Your task to perform on an android device: open app "DoorDash - Dasher" Image 0: 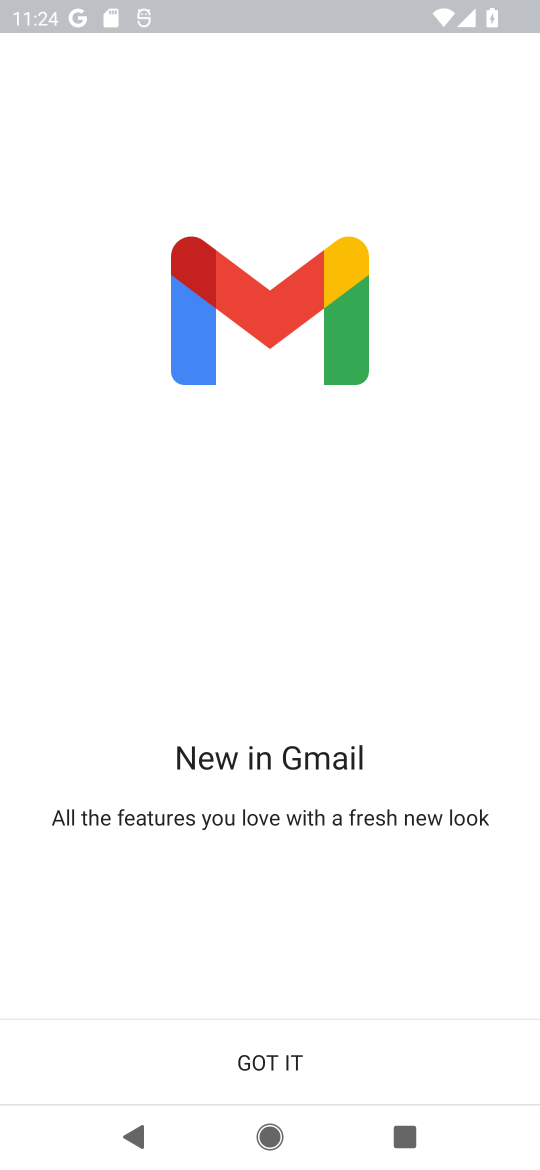
Step 0: press back button
Your task to perform on an android device: open app "DoorDash - Dasher" Image 1: 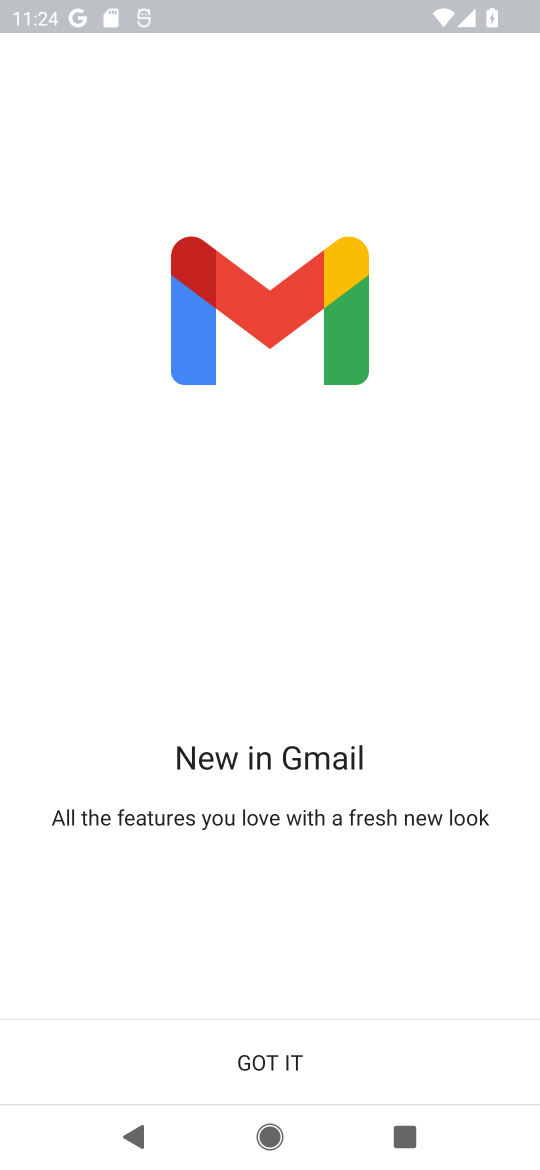
Step 1: press back button
Your task to perform on an android device: open app "DoorDash - Dasher" Image 2: 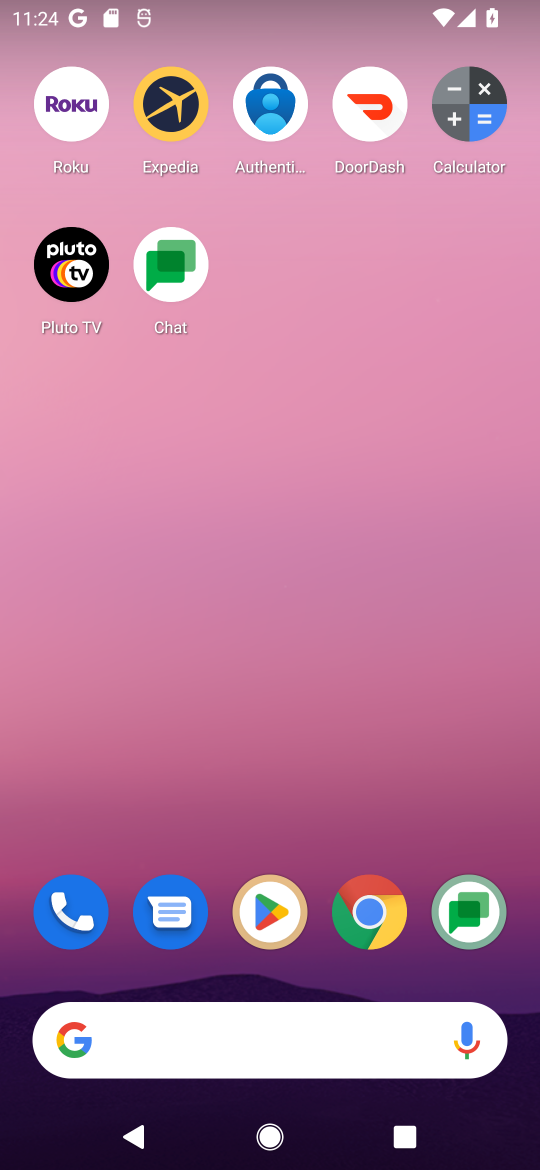
Step 2: press back button
Your task to perform on an android device: open app "DoorDash - Dasher" Image 3: 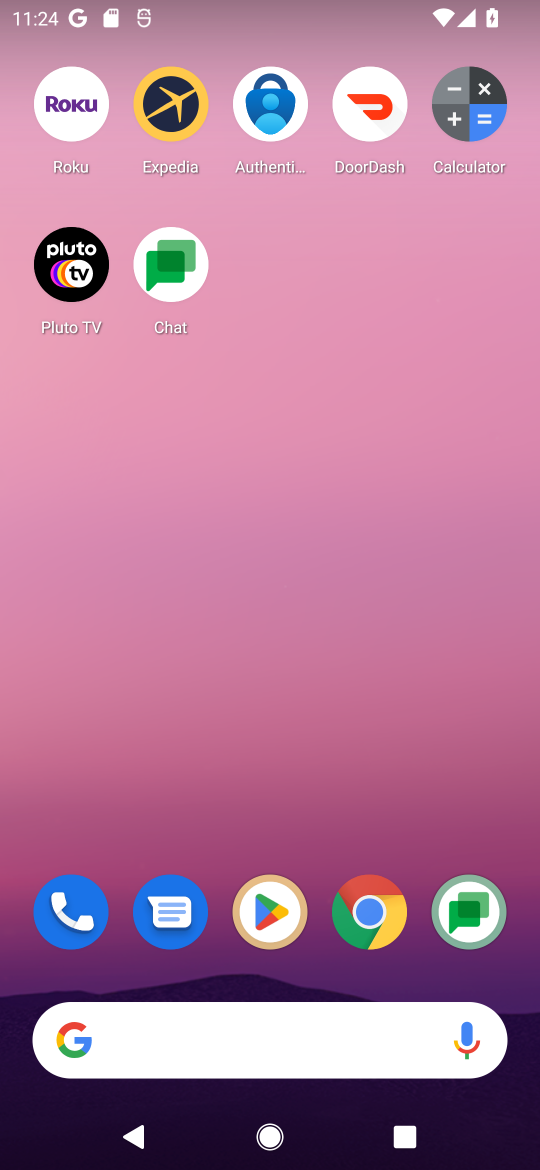
Step 3: press back button
Your task to perform on an android device: open app "DoorDash - Dasher" Image 4: 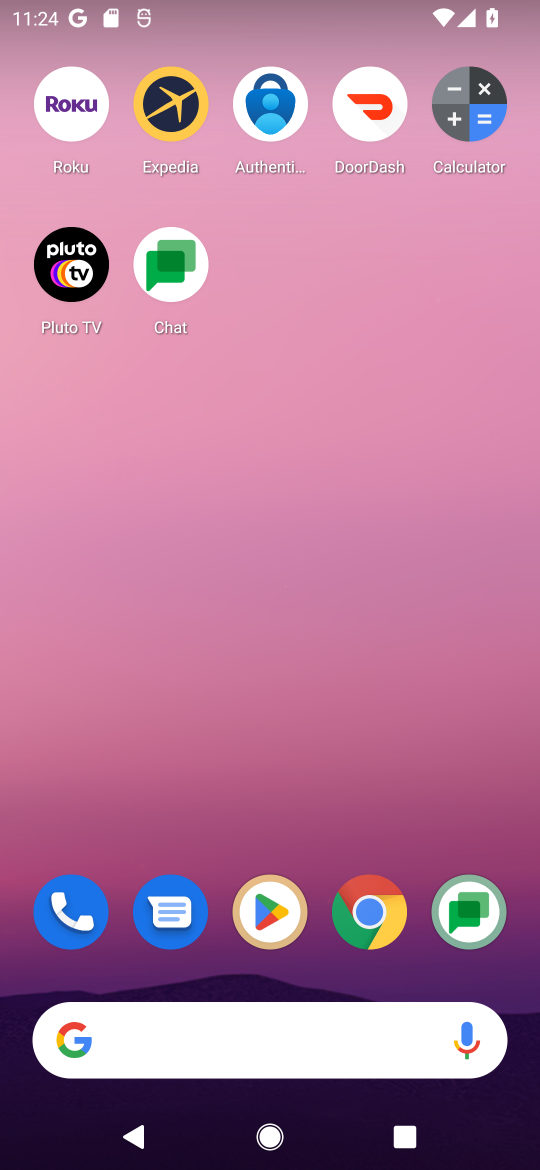
Step 4: click (284, 929)
Your task to perform on an android device: open app "DoorDash - Dasher" Image 5: 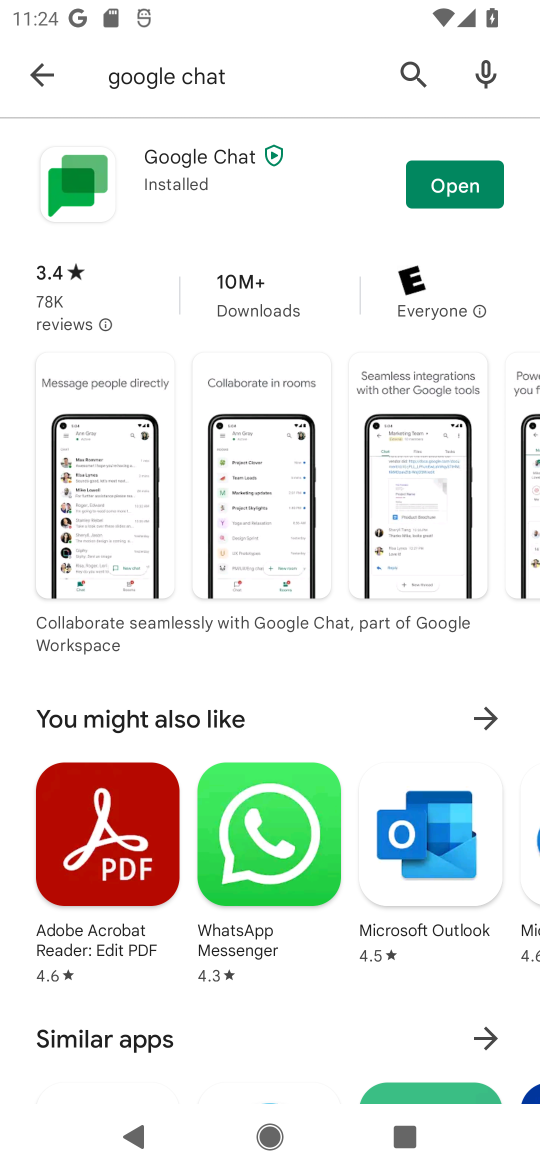
Step 5: click (406, 63)
Your task to perform on an android device: open app "DoorDash - Dasher" Image 6: 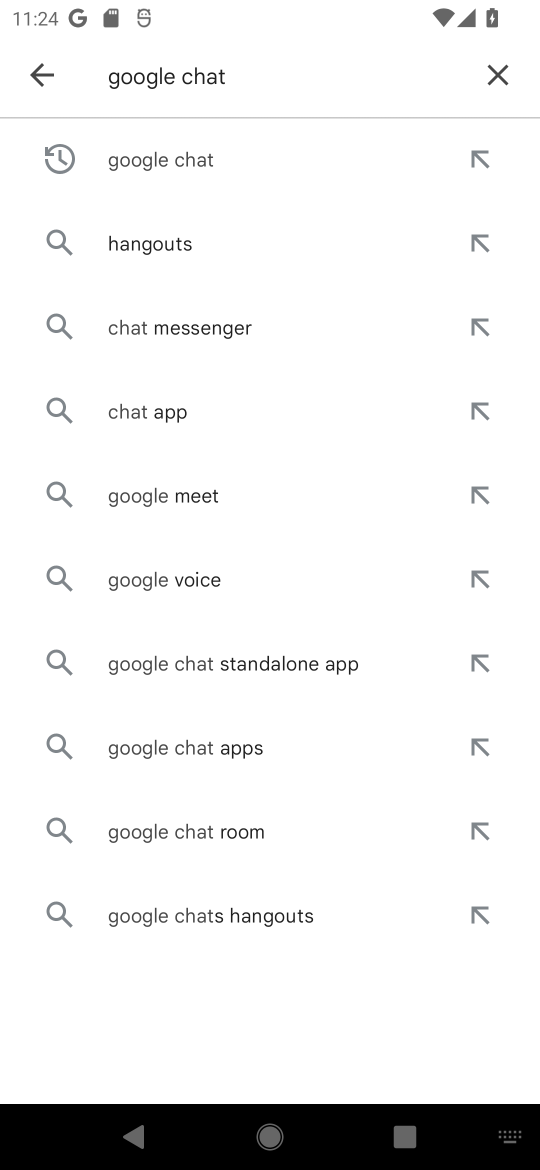
Step 6: click (484, 67)
Your task to perform on an android device: open app "DoorDash - Dasher" Image 7: 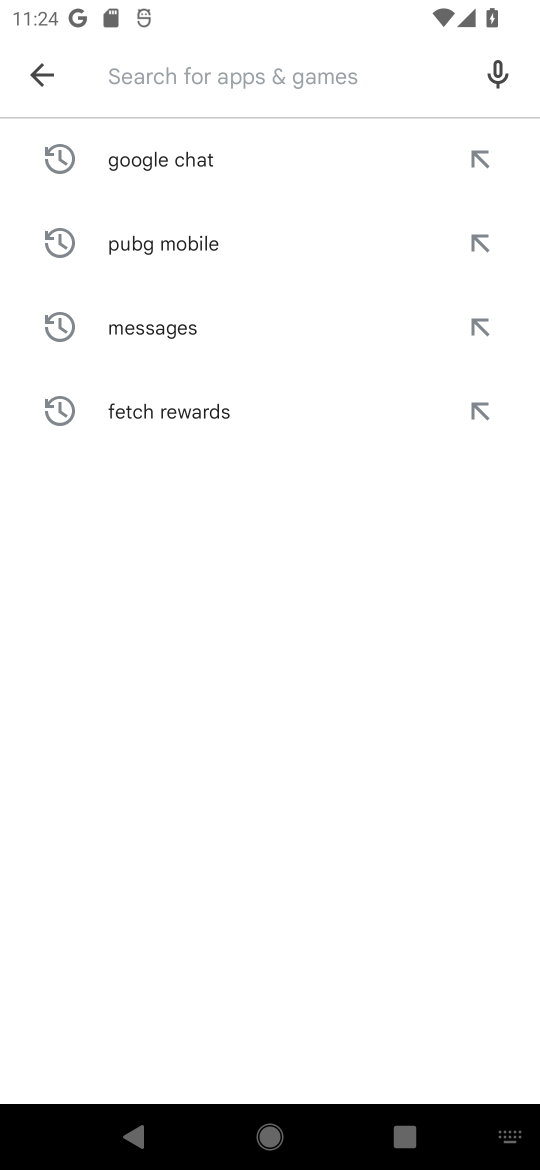
Step 7: type "door dash"
Your task to perform on an android device: open app "DoorDash - Dasher" Image 8: 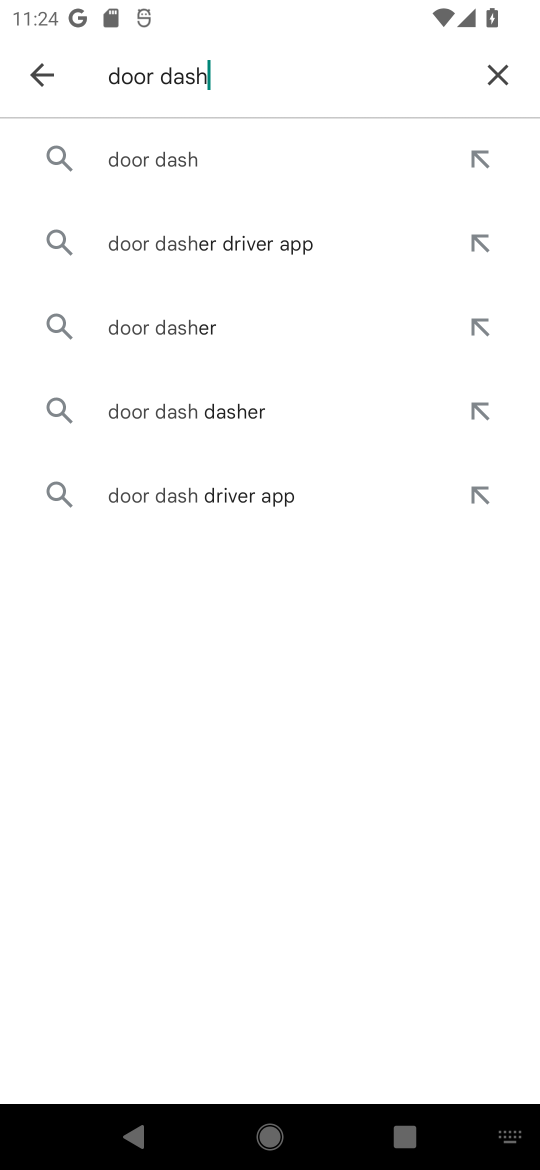
Step 8: click (148, 161)
Your task to perform on an android device: open app "DoorDash - Dasher" Image 9: 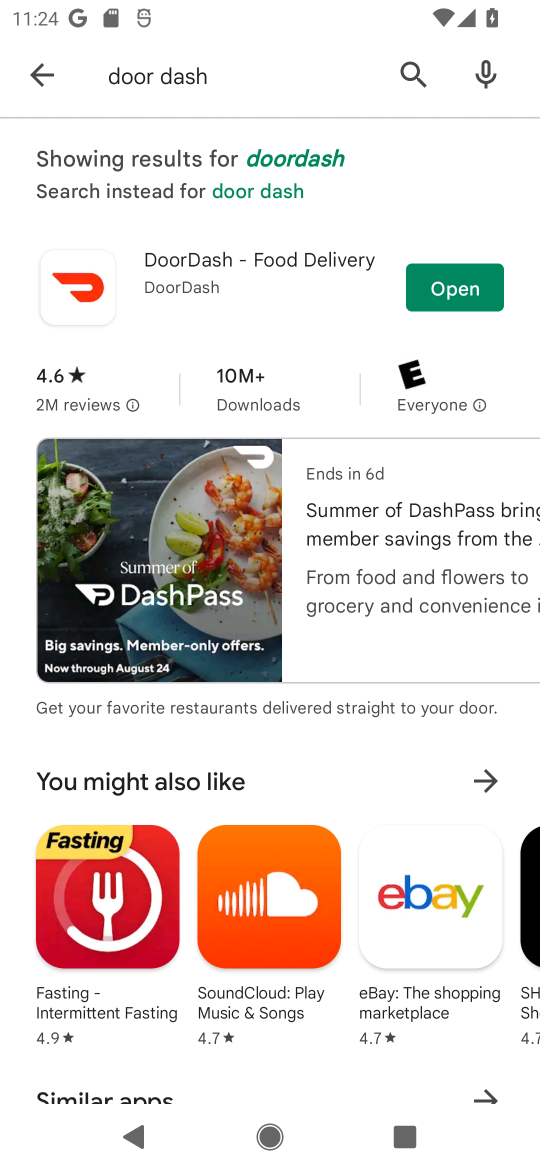
Step 9: click (186, 261)
Your task to perform on an android device: open app "DoorDash - Dasher" Image 10: 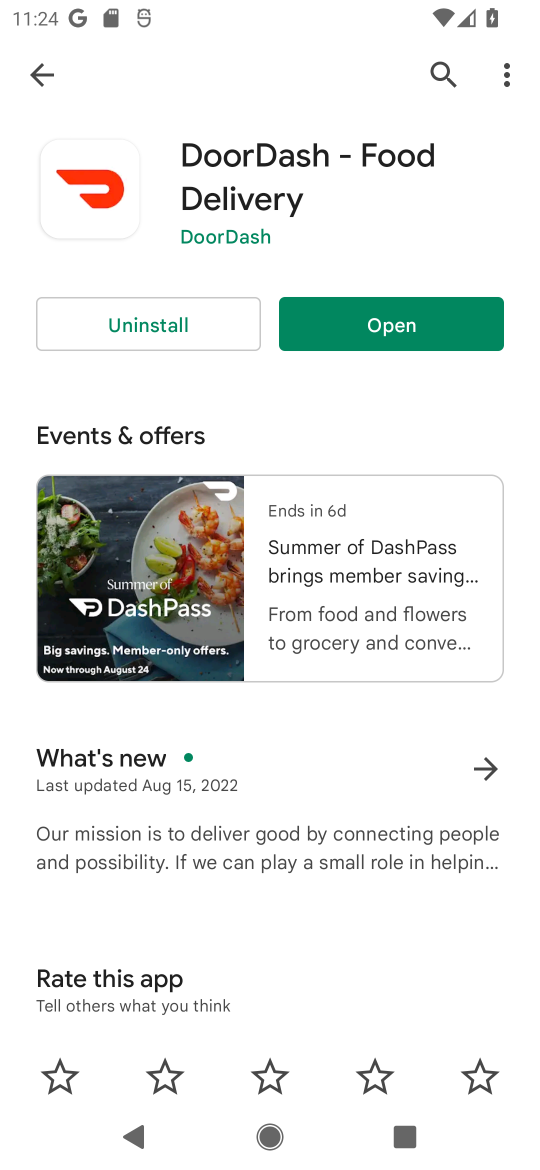
Step 10: click (383, 317)
Your task to perform on an android device: open app "DoorDash - Dasher" Image 11: 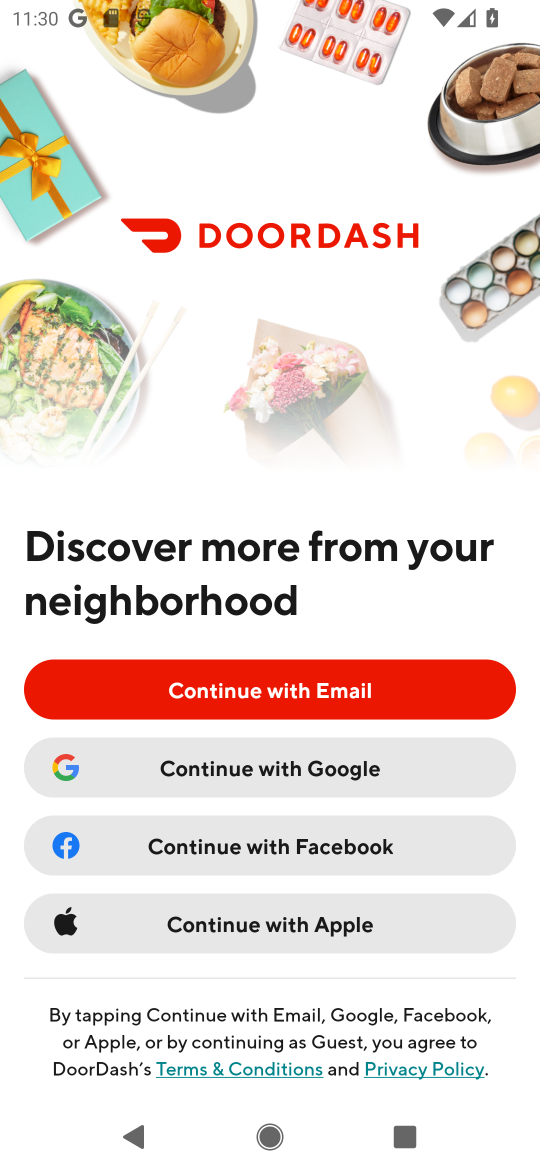
Step 11: task complete